Your task to perform on an android device: Play the latest video from the Washington Post Image 0: 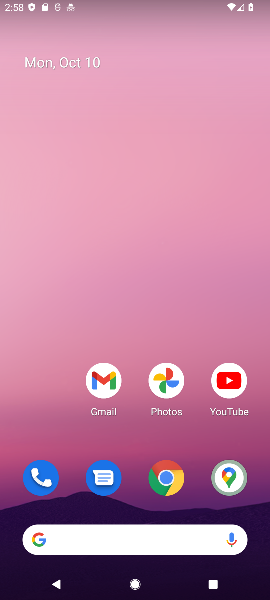
Step 0: click (168, 464)
Your task to perform on an android device: Play the latest video from the Washington Post Image 1: 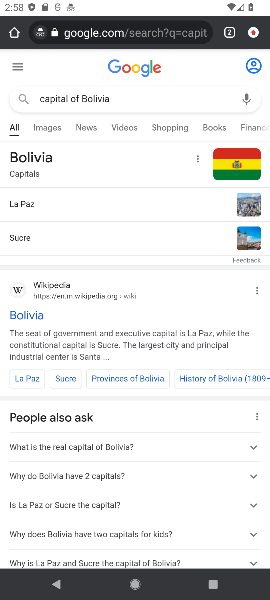
Step 1: click (113, 20)
Your task to perform on an android device: Play the latest video from the Washington Post Image 2: 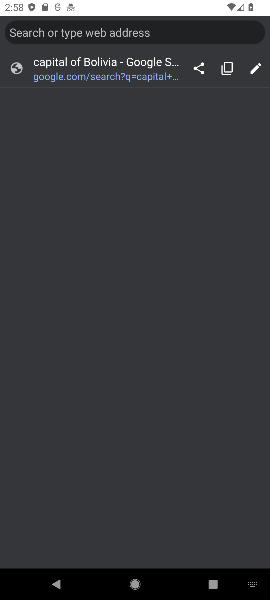
Step 2: type " latest video from the Washington Post"
Your task to perform on an android device: Play the latest video from the Washington Post Image 3: 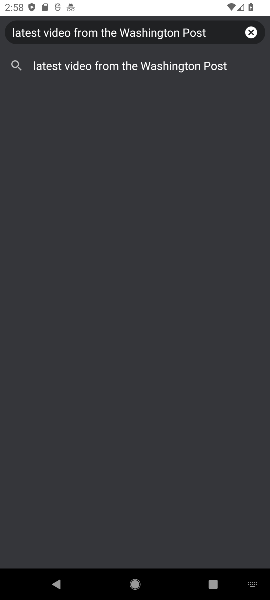
Step 3: click (127, 68)
Your task to perform on an android device: Play the latest video from the Washington Post Image 4: 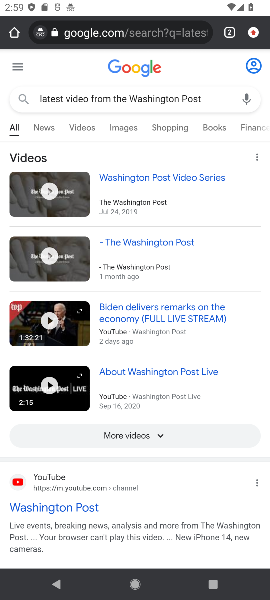
Step 4: click (82, 122)
Your task to perform on an android device: Play the latest video from the Washington Post Image 5: 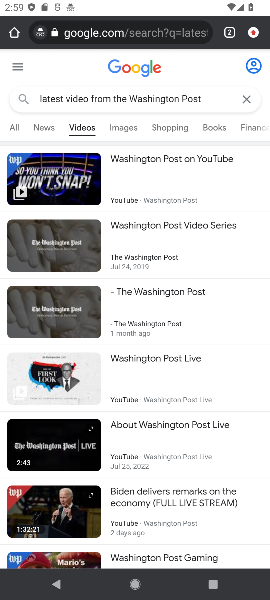
Step 5: click (140, 496)
Your task to perform on an android device: Play the latest video from the Washington Post Image 6: 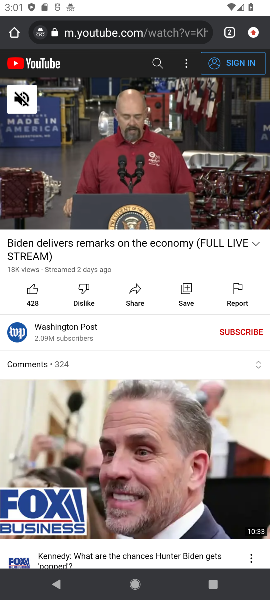
Step 6: task complete